Your task to perform on an android device: set the timer Image 0: 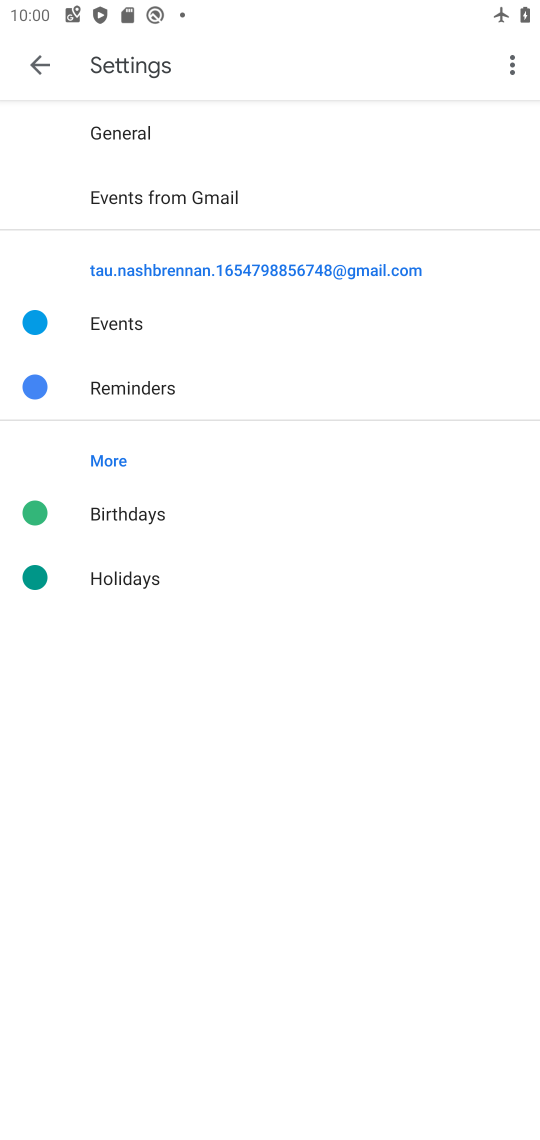
Step 0: press home button
Your task to perform on an android device: set the timer Image 1: 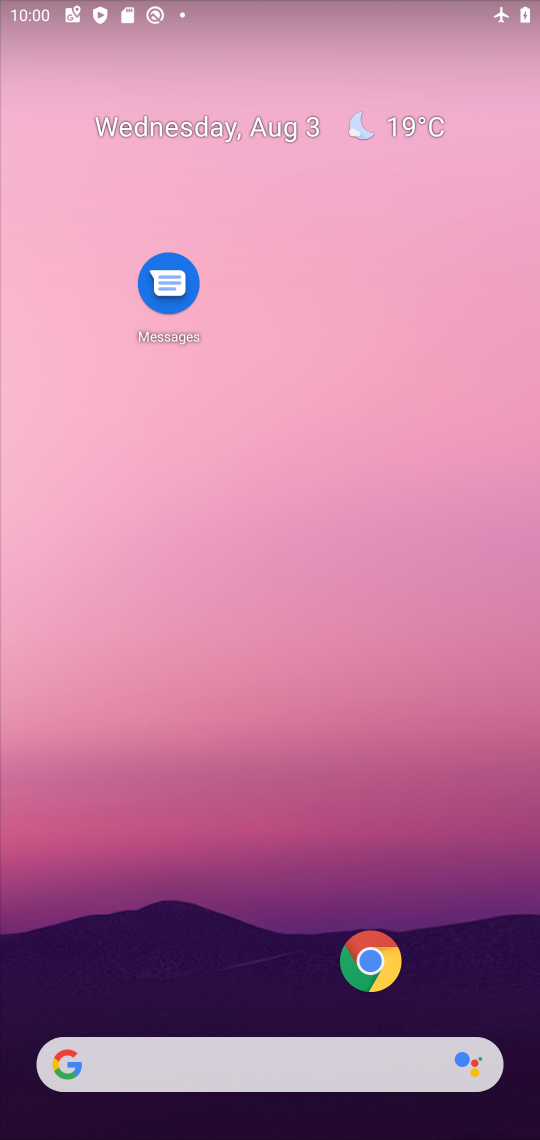
Step 1: drag from (255, 971) to (168, 87)
Your task to perform on an android device: set the timer Image 2: 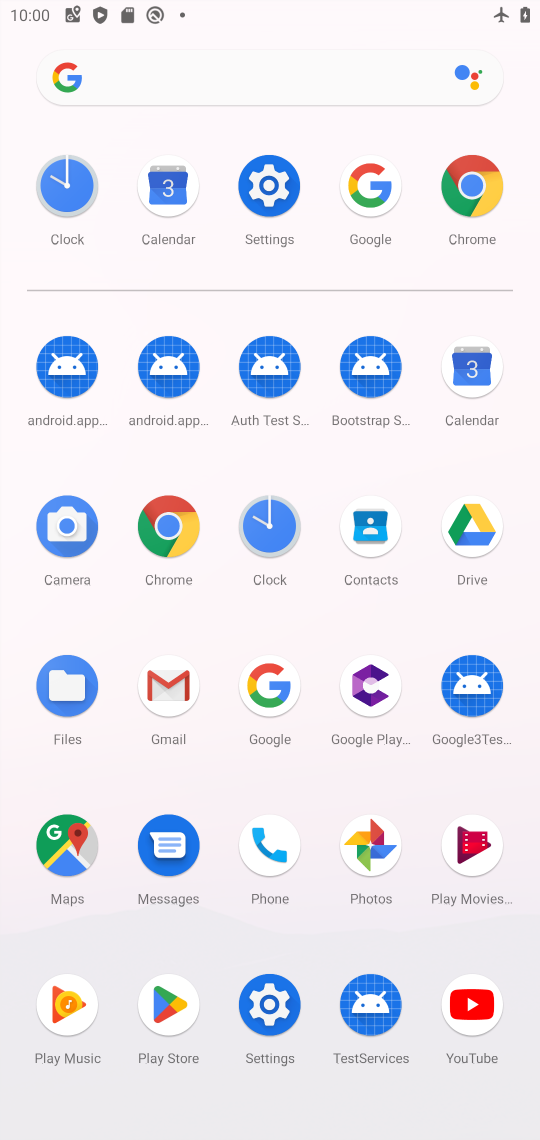
Step 2: click (279, 533)
Your task to perform on an android device: set the timer Image 3: 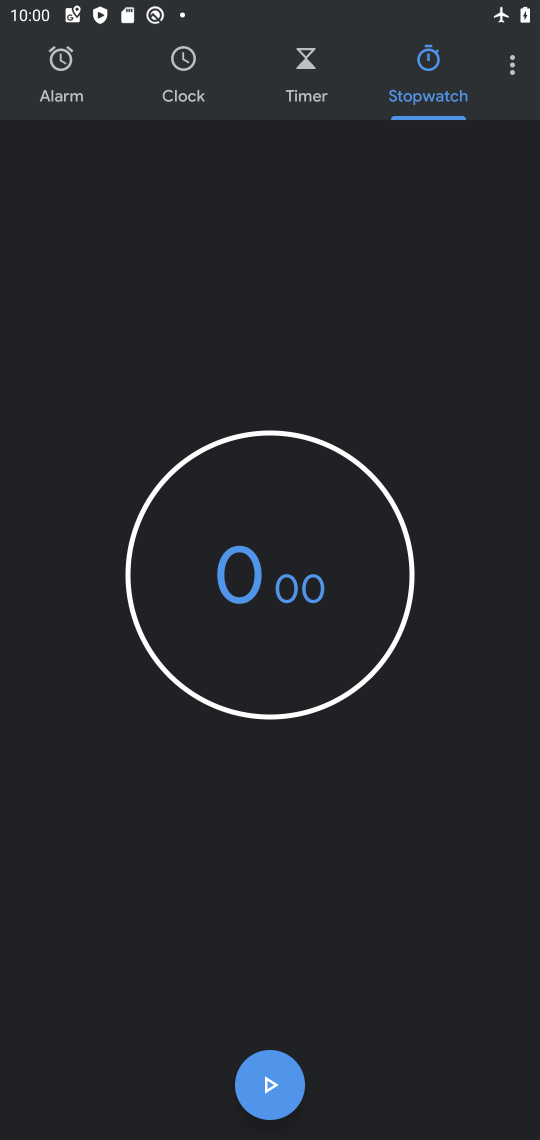
Step 3: click (329, 85)
Your task to perform on an android device: set the timer Image 4: 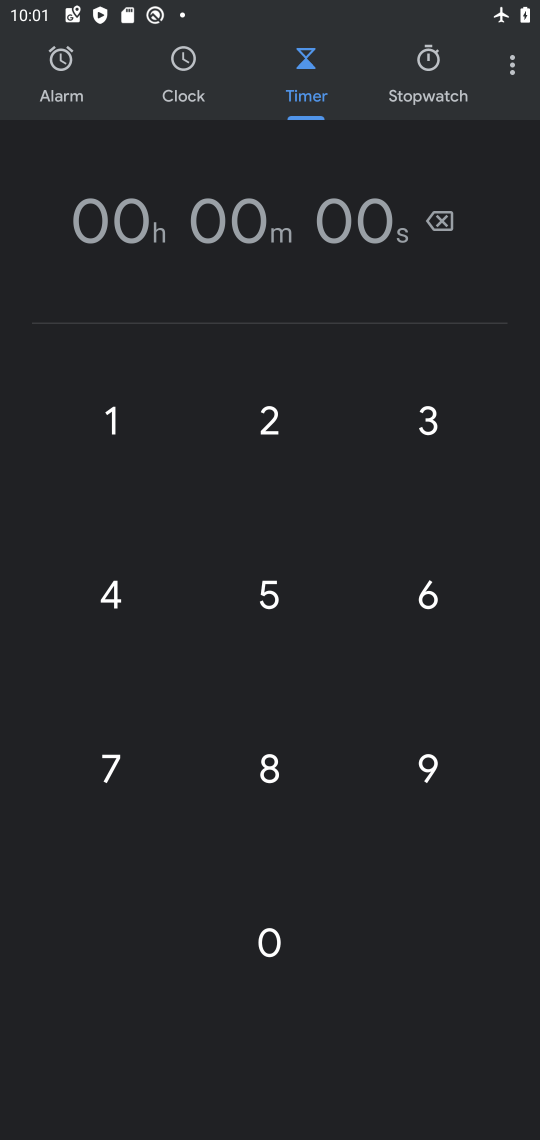
Step 4: click (297, 420)
Your task to perform on an android device: set the timer Image 5: 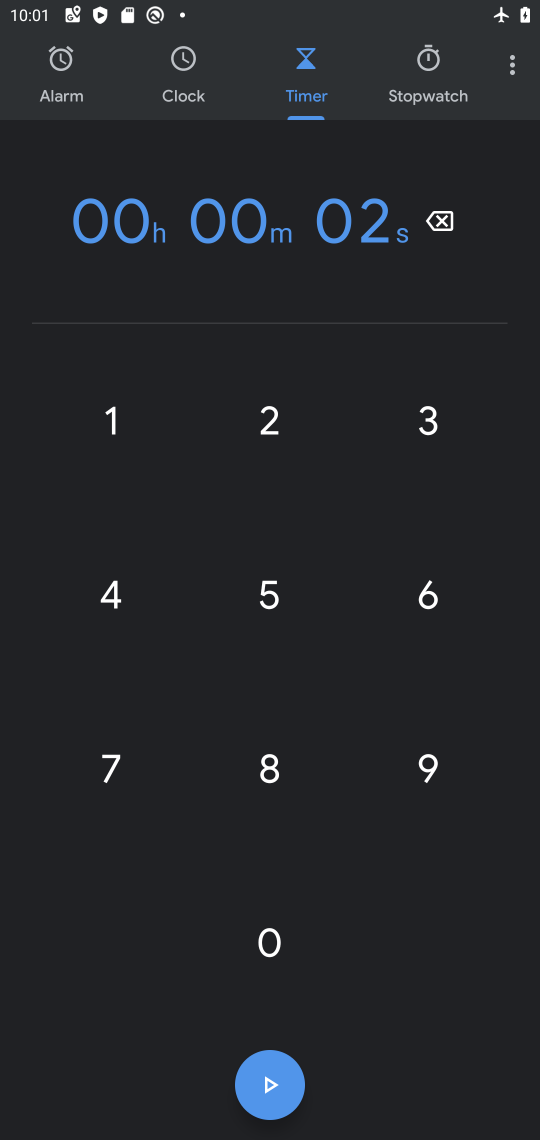
Step 5: click (247, 1085)
Your task to perform on an android device: set the timer Image 6: 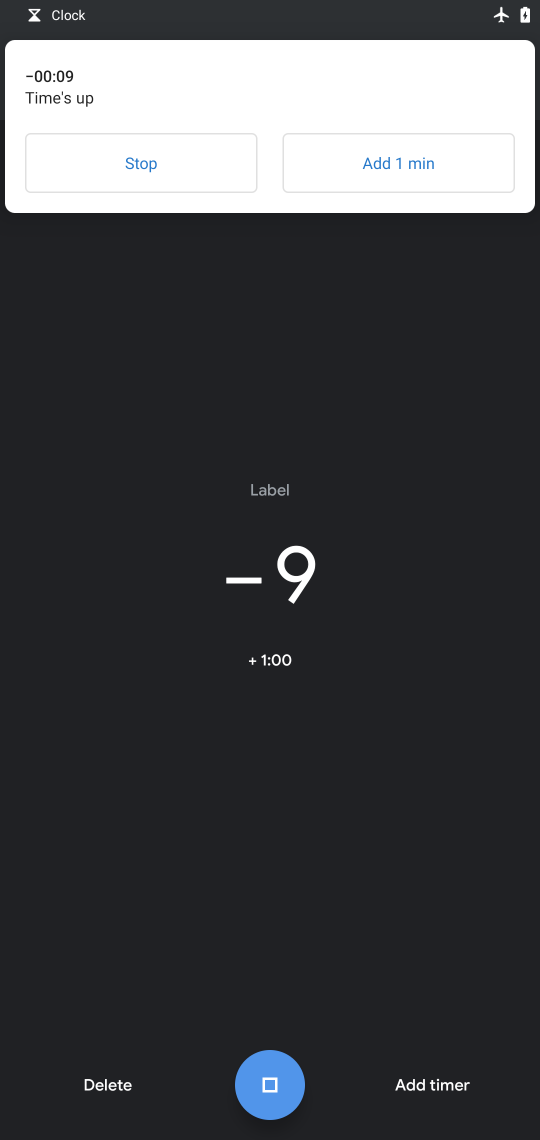
Step 6: click (147, 159)
Your task to perform on an android device: set the timer Image 7: 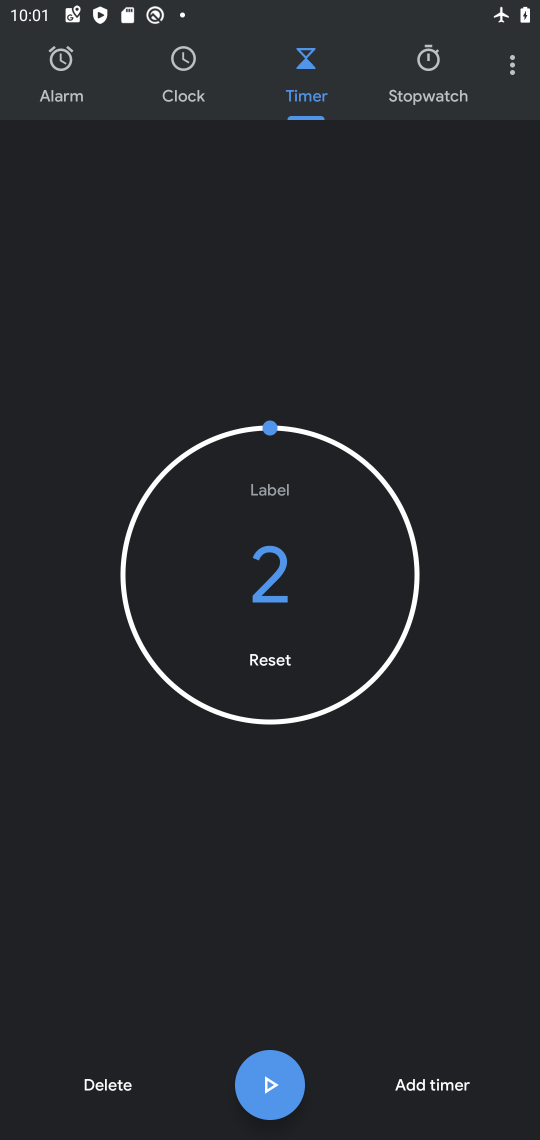
Step 7: task complete